Your task to perform on an android device: Open Yahoo.com Image 0: 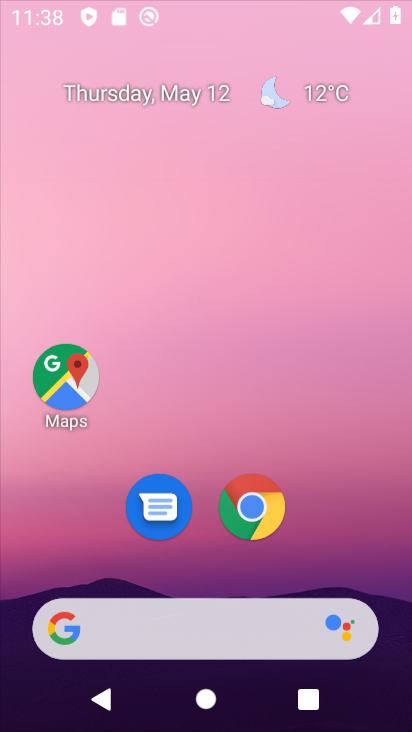
Step 0: click (241, 503)
Your task to perform on an android device: Open Yahoo.com Image 1: 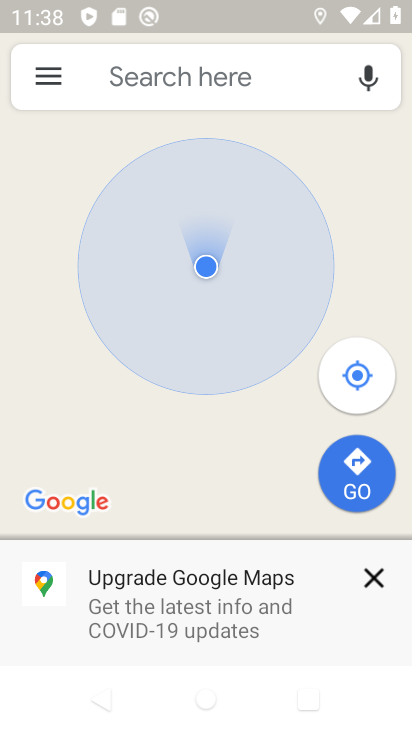
Step 1: press home button
Your task to perform on an android device: Open Yahoo.com Image 2: 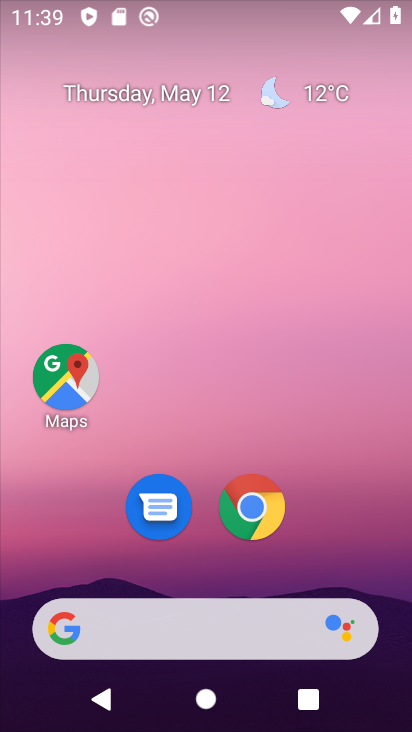
Step 2: click (268, 511)
Your task to perform on an android device: Open Yahoo.com Image 3: 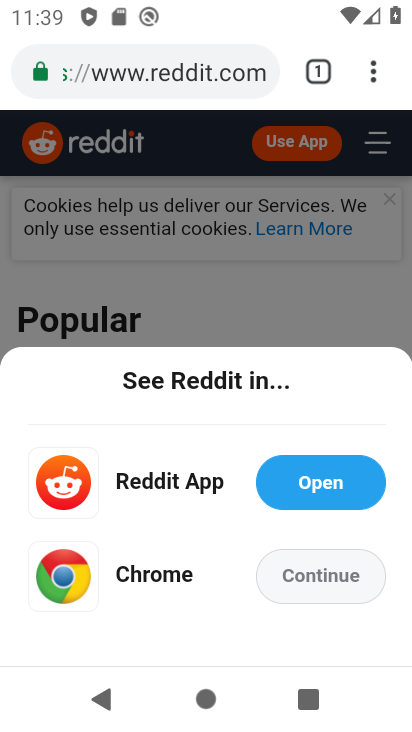
Step 3: click (190, 72)
Your task to perform on an android device: Open Yahoo.com Image 4: 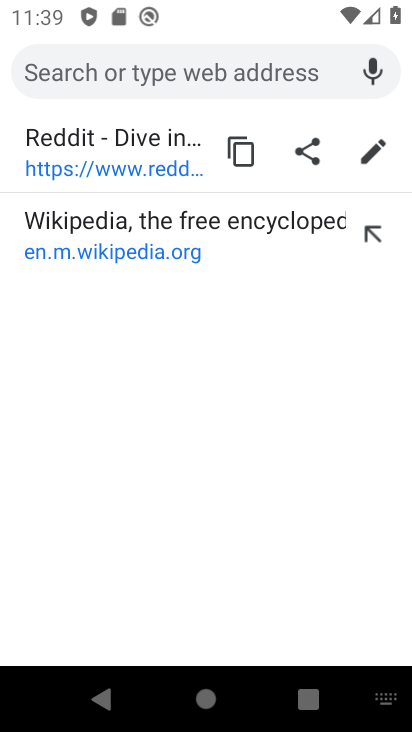
Step 4: type "yahoo.com"
Your task to perform on an android device: Open Yahoo.com Image 5: 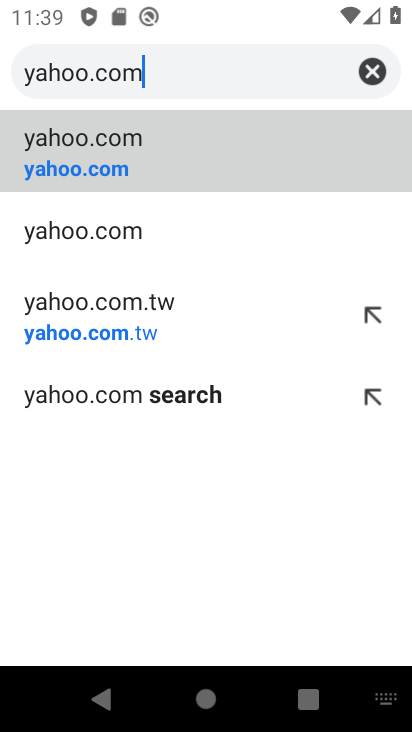
Step 5: click (216, 276)
Your task to perform on an android device: Open Yahoo.com Image 6: 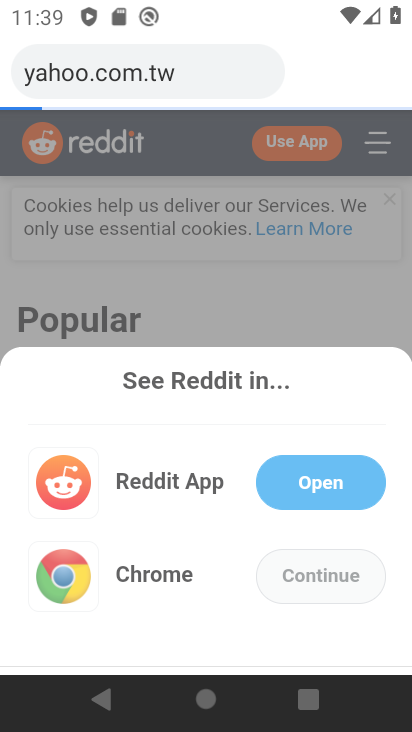
Step 6: click (117, 161)
Your task to perform on an android device: Open Yahoo.com Image 7: 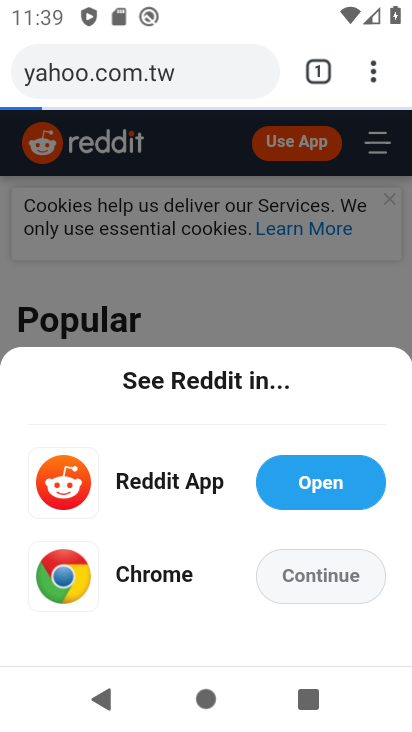
Step 7: click (117, 161)
Your task to perform on an android device: Open Yahoo.com Image 8: 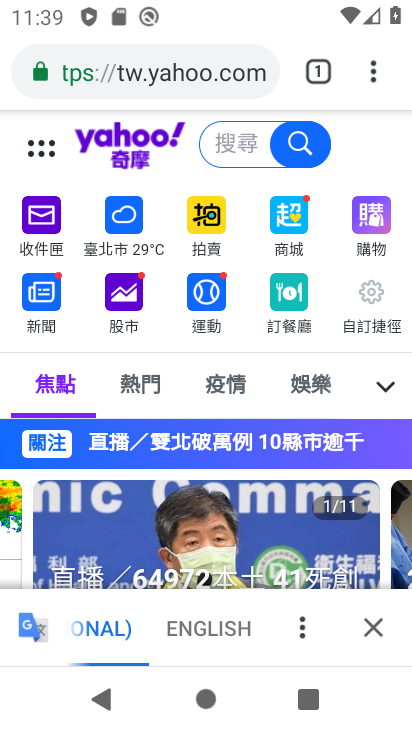
Step 8: task complete